Your task to perform on an android device: turn off translation in the chrome app Image 0: 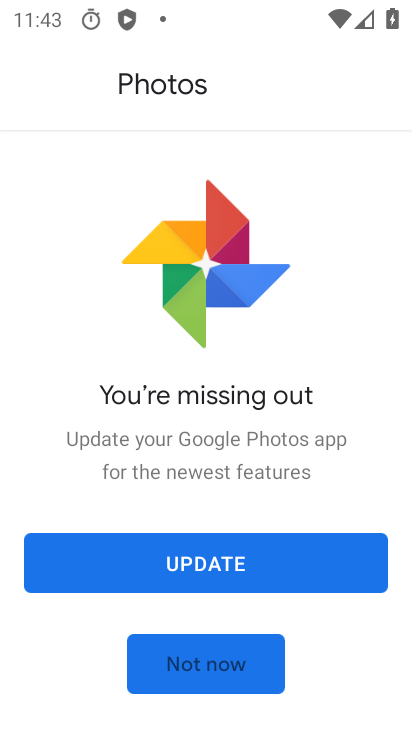
Step 0: press home button
Your task to perform on an android device: turn off translation in the chrome app Image 1: 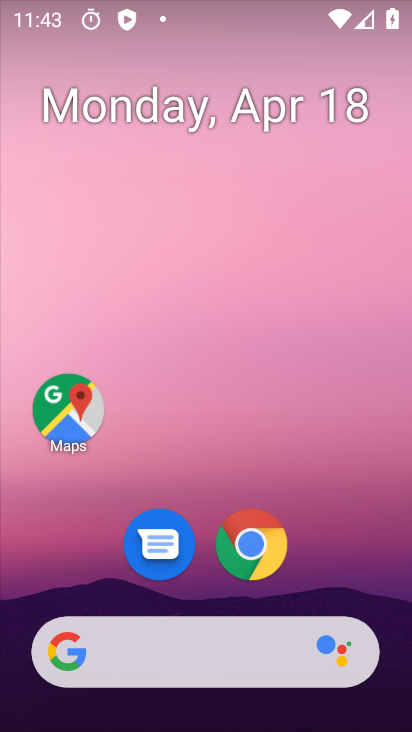
Step 1: click (261, 557)
Your task to perform on an android device: turn off translation in the chrome app Image 2: 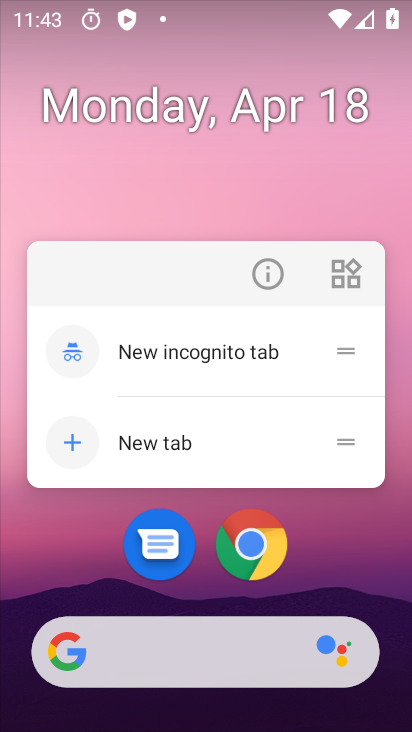
Step 2: click (258, 553)
Your task to perform on an android device: turn off translation in the chrome app Image 3: 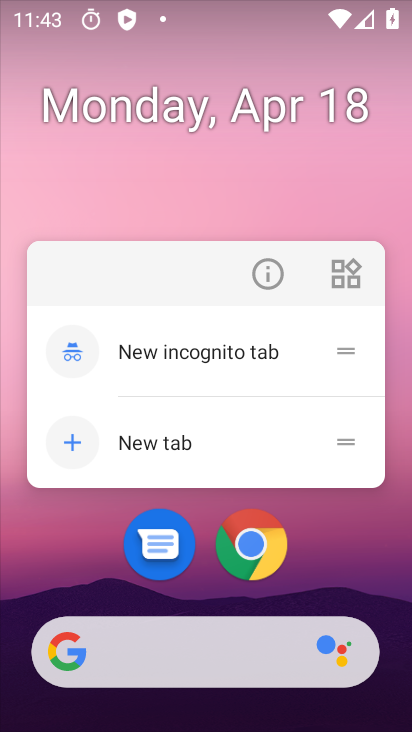
Step 3: click (258, 549)
Your task to perform on an android device: turn off translation in the chrome app Image 4: 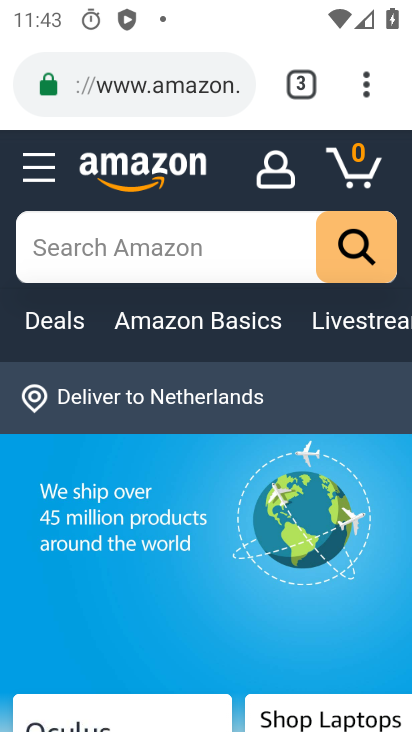
Step 4: click (364, 83)
Your task to perform on an android device: turn off translation in the chrome app Image 5: 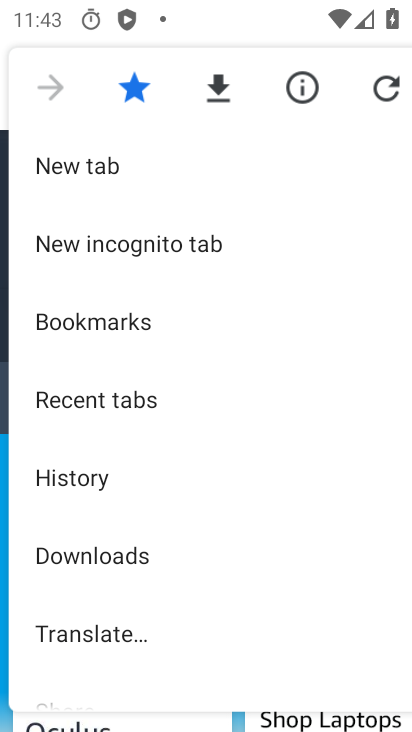
Step 5: drag from (333, 572) to (297, 174)
Your task to perform on an android device: turn off translation in the chrome app Image 6: 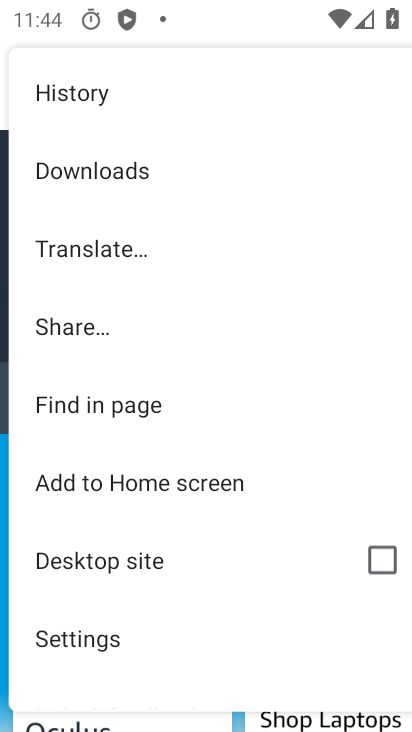
Step 6: drag from (189, 550) to (166, 238)
Your task to perform on an android device: turn off translation in the chrome app Image 7: 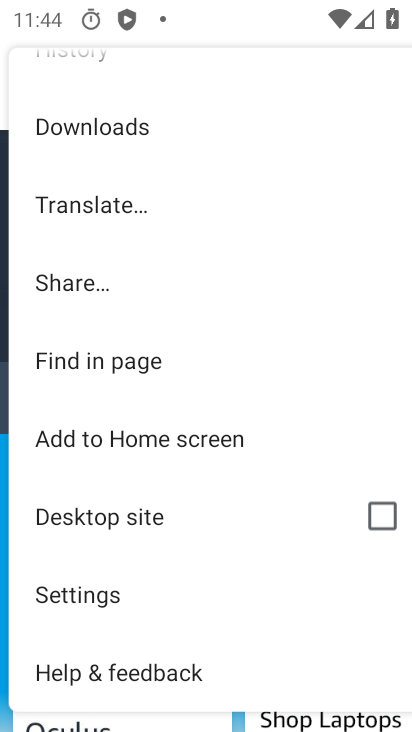
Step 7: click (50, 595)
Your task to perform on an android device: turn off translation in the chrome app Image 8: 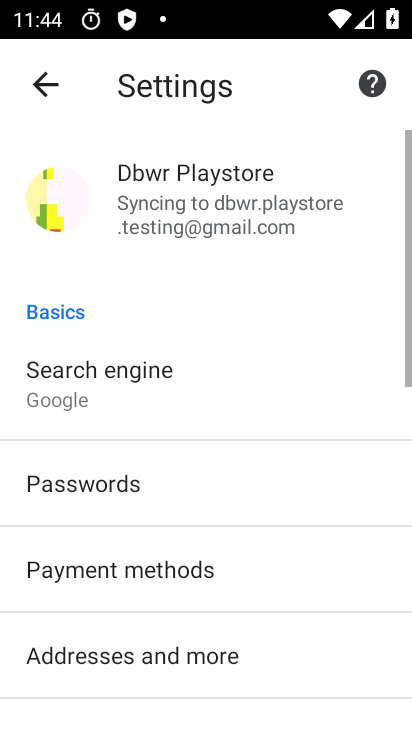
Step 8: drag from (194, 617) to (185, 173)
Your task to perform on an android device: turn off translation in the chrome app Image 9: 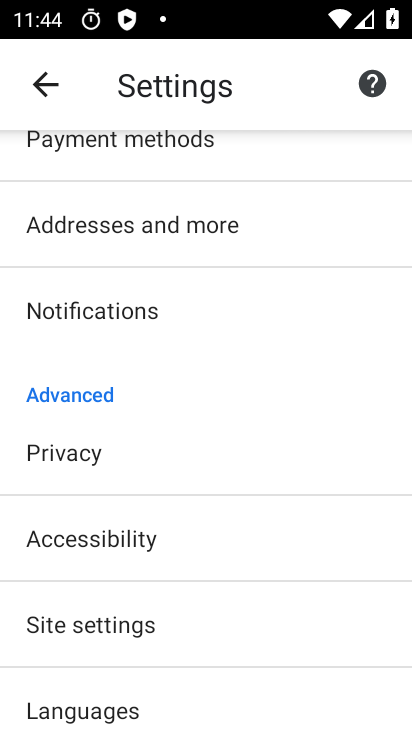
Step 9: click (108, 708)
Your task to perform on an android device: turn off translation in the chrome app Image 10: 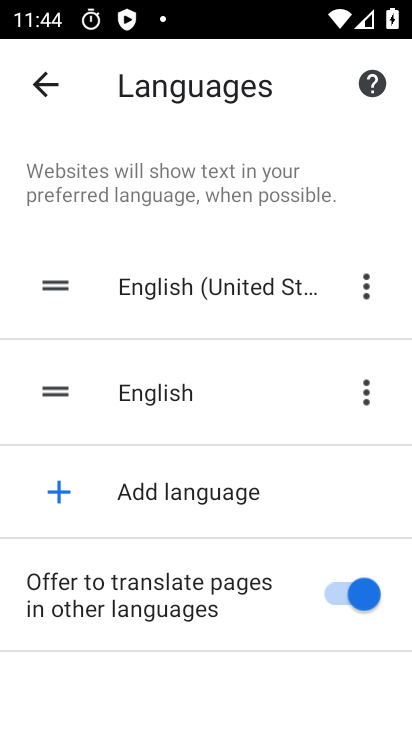
Step 10: click (359, 598)
Your task to perform on an android device: turn off translation in the chrome app Image 11: 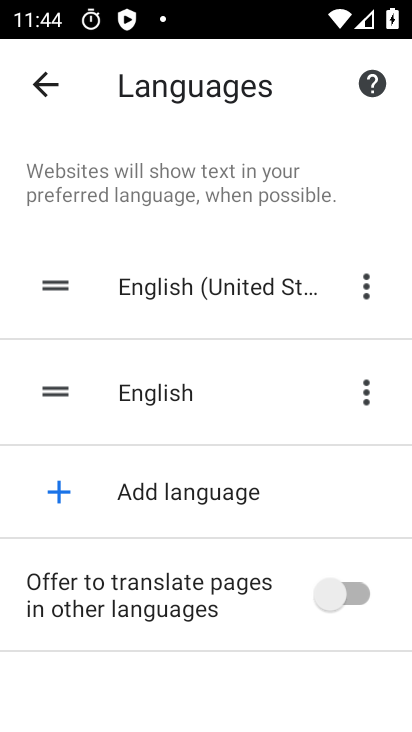
Step 11: task complete